Your task to perform on an android device: delete a single message in the gmail app Image 0: 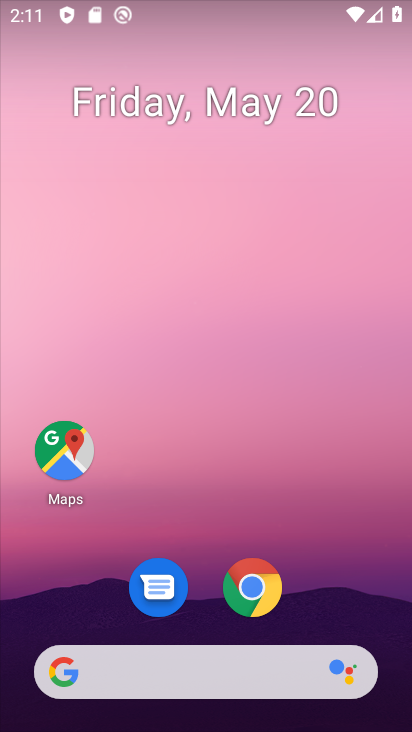
Step 0: drag from (365, 589) to (364, 52)
Your task to perform on an android device: delete a single message in the gmail app Image 1: 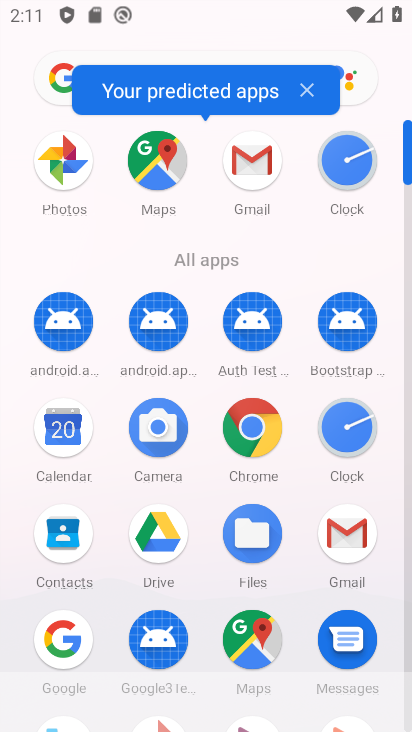
Step 1: click (357, 551)
Your task to perform on an android device: delete a single message in the gmail app Image 2: 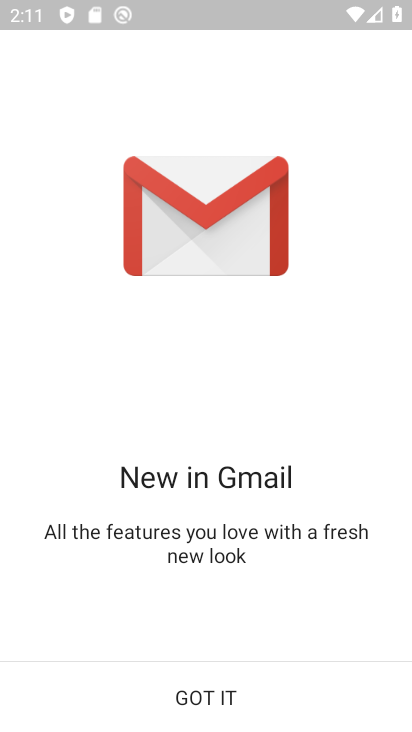
Step 2: click (309, 682)
Your task to perform on an android device: delete a single message in the gmail app Image 3: 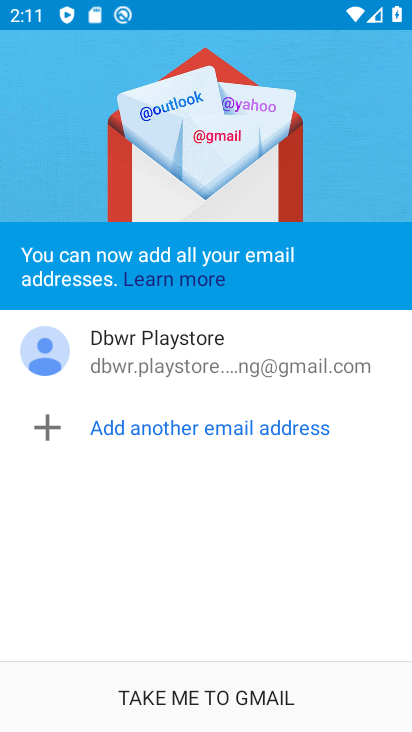
Step 3: click (309, 682)
Your task to perform on an android device: delete a single message in the gmail app Image 4: 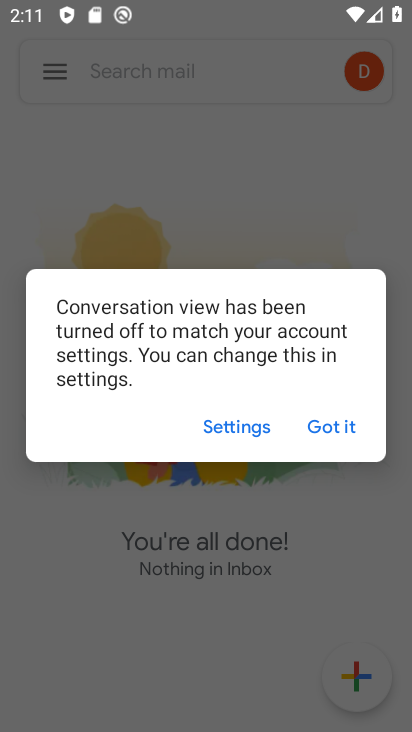
Step 4: click (329, 418)
Your task to perform on an android device: delete a single message in the gmail app Image 5: 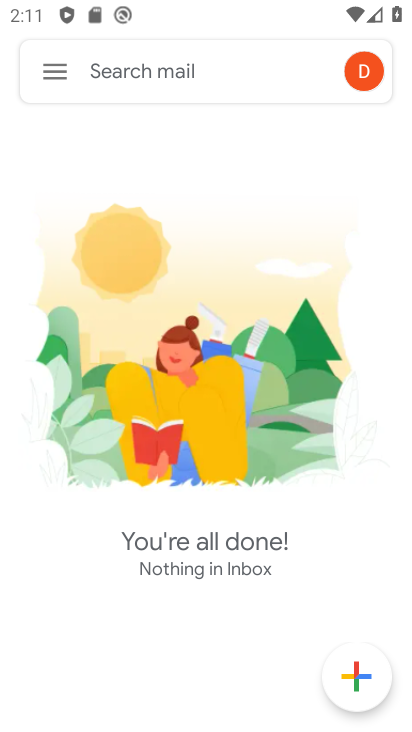
Step 5: task complete